Your task to perform on an android device: set the timer Image 0: 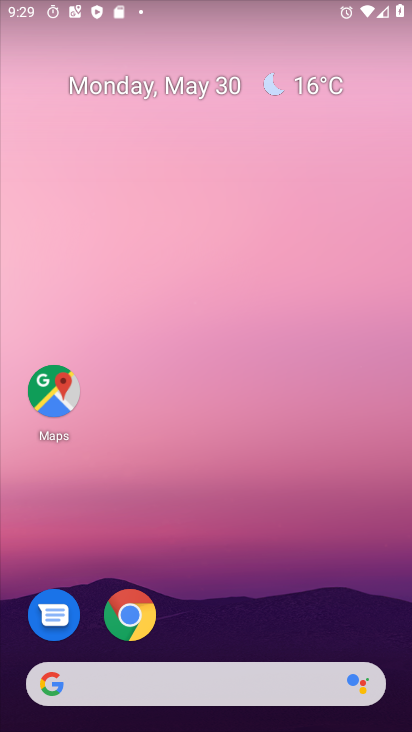
Step 0: drag from (294, 596) to (308, 67)
Your task to perform on an android device: set the timer Image 1: 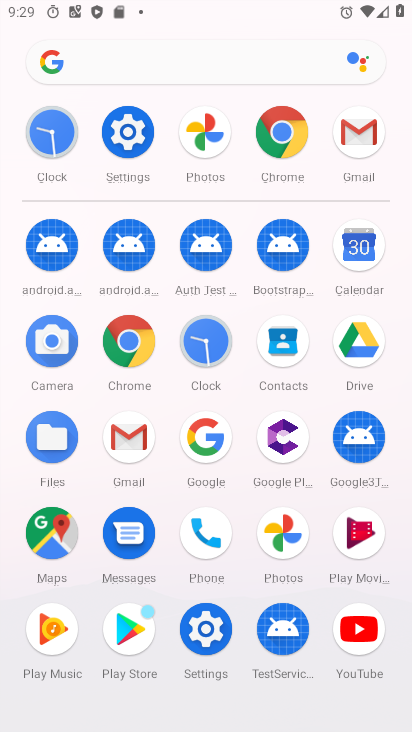
Step 1: click (208, 356)
Your task to perform on an android device: set the timer Image 2: 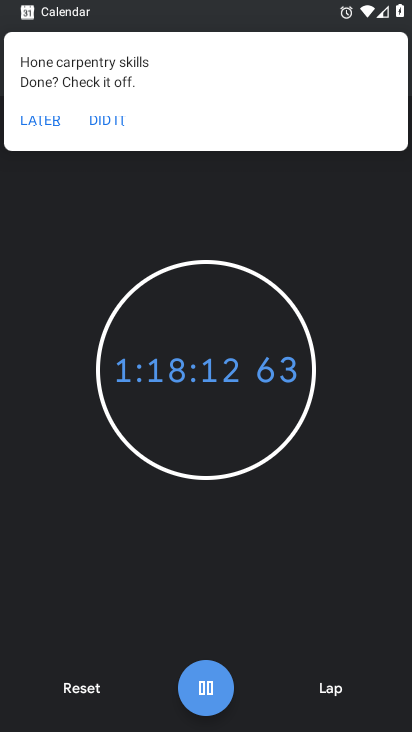
Step 2: press back button
Your task to perform on an android device: set the timer Image 3: 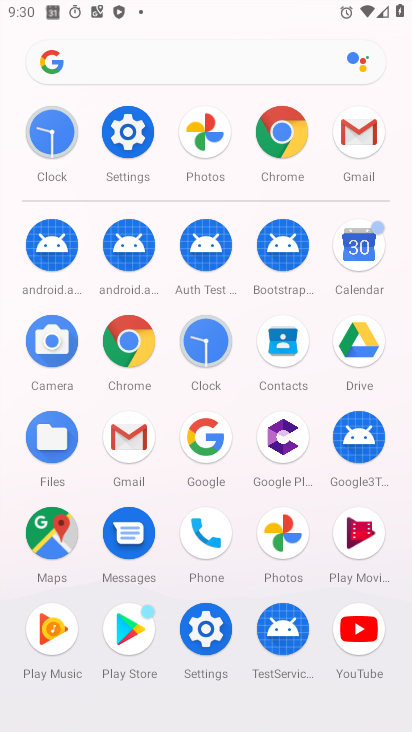
Step 3: click (216, 344)
Your task to perform on an android device: set the timer Image 4: 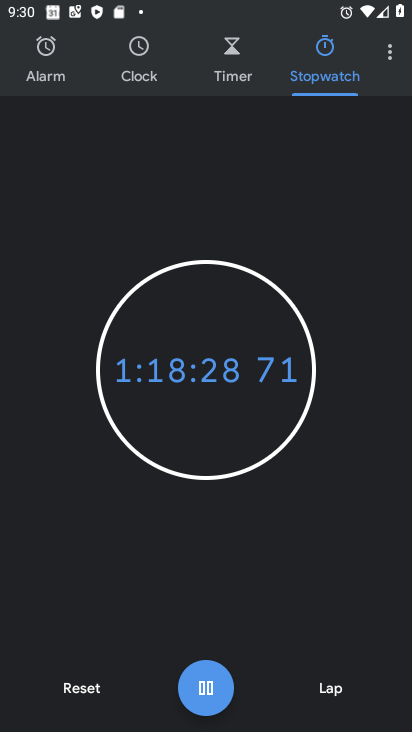
Step 4: click (223, 57)
Your task to perform on an android device: set the timer Image 5: 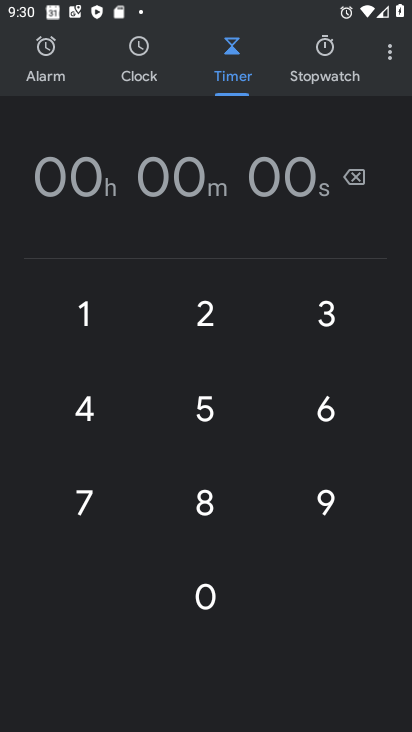
Step 5: click (98, 301)
Your task to perform on an android device: set the timer Image 6: 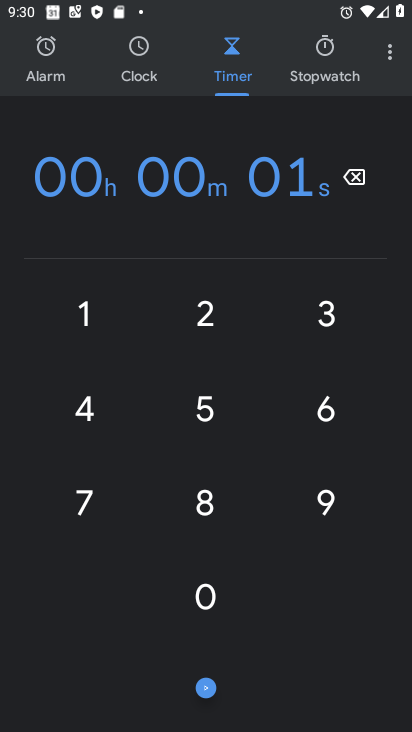
Step 6: click (95, 389)
Your task to perform on an android device: set the timer Image 7: 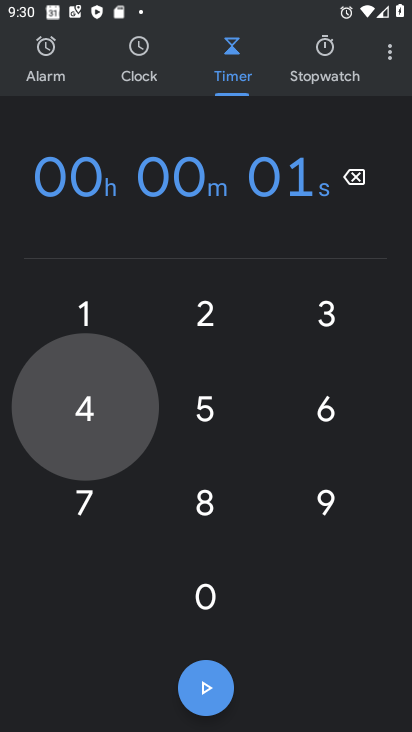
Step 7: click (97, 301)
Your task to perform on an android device: set the timer Image 8: 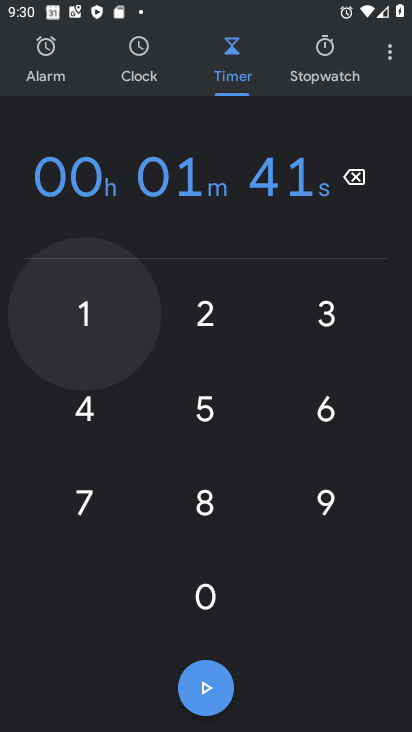
Step 8: click (101, 424)
Your task to perform on an android device: set the timer Image 9: 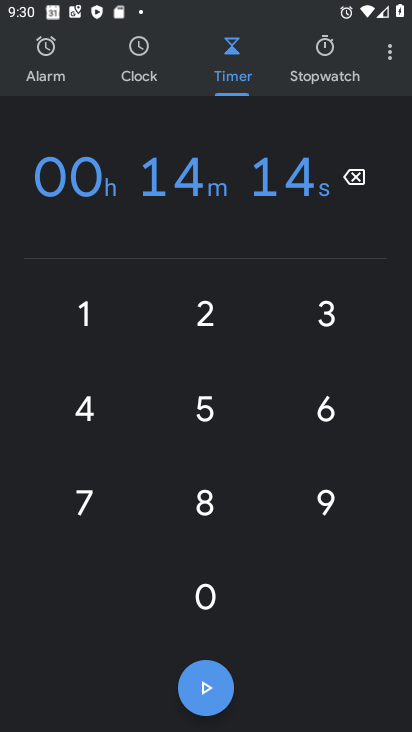
Step 9: click (84, 332)
Your task to perform on an android device: set the timer Image 10: 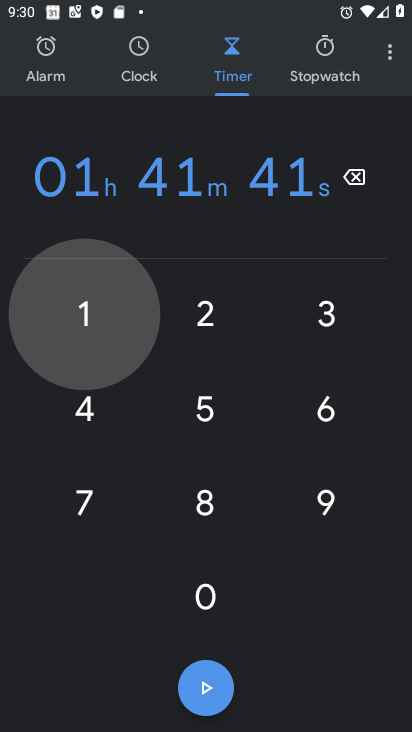
Step 10: click (66, 419)
Your task to perform on an android device: set the timer Image 11: 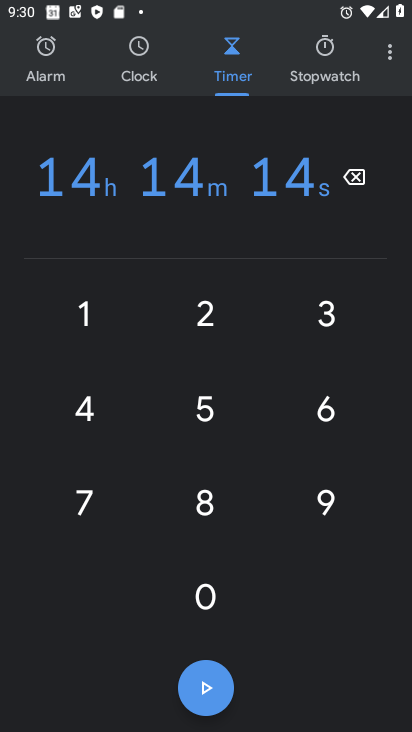
Step 11: click (220, 684)
Your task to perform on an android device: set the timer Image 12: 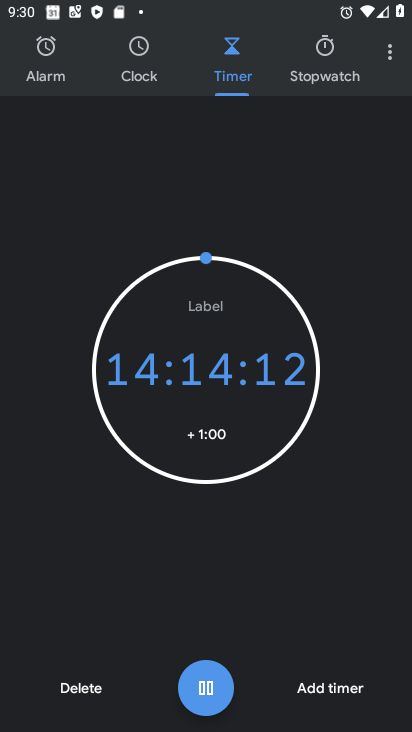
Step 12: task complete